Your task to perform on an android device: manage bookmarks in the chrome app Image 0: 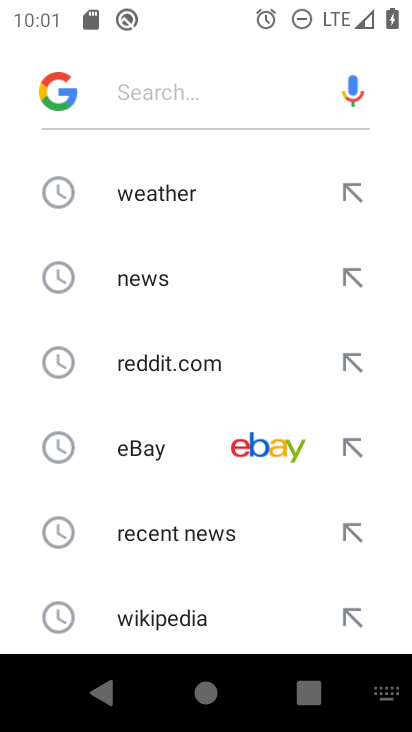
Step 0: press home button
Your task to perform on an android device: manage bookmarks in the chrome app Image 1: 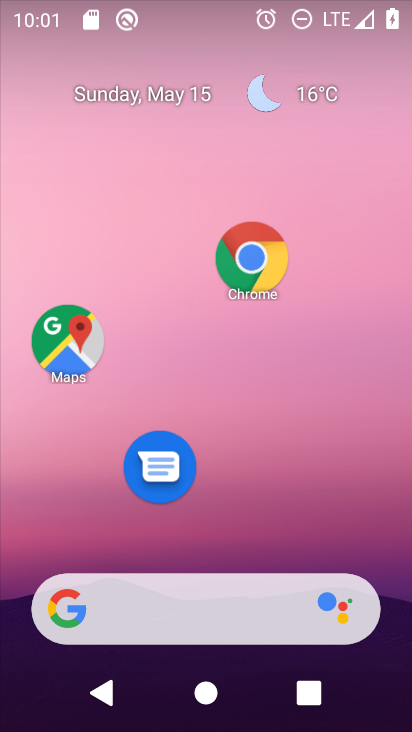
Step 1: click (257, 249)
Your task to perform on an android device: manage bookmarks in the chrome app Image 2: 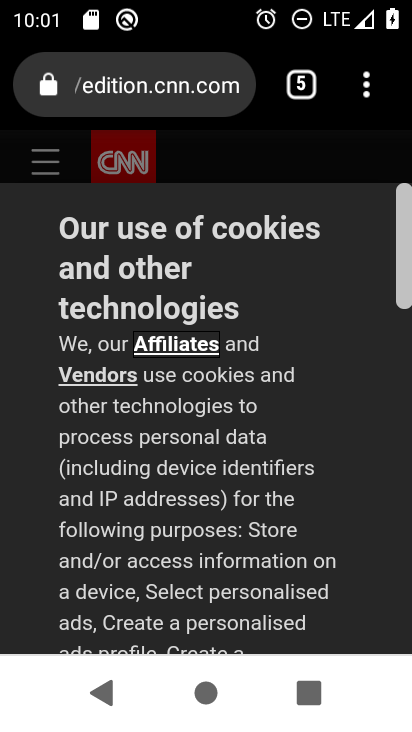
Step 2: click (369, 79)
Your task to perform on an android device: manage bookmarks in the chrome app Image 3: 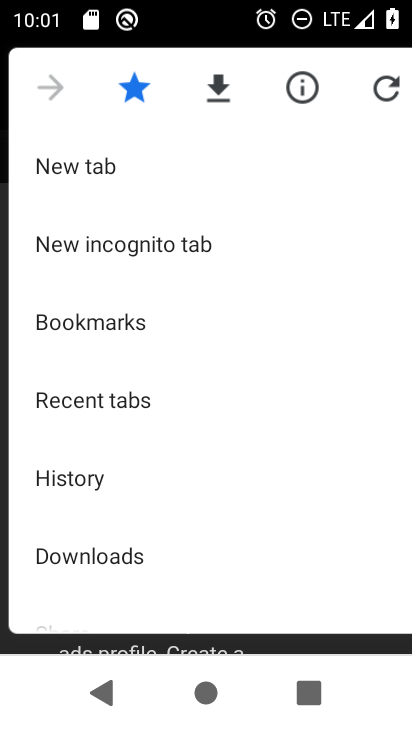
Step 3: click (143, 324)
Your task to perform on an android device: manage bookmarks in the chrome app Image 4: 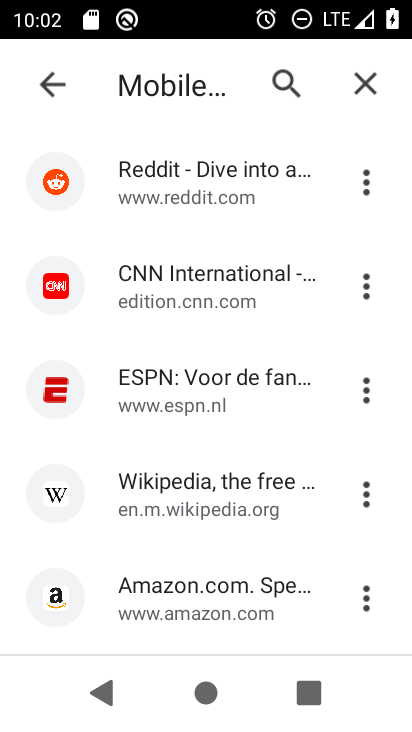
Step 4: click (377, 382)
Your task to perform on an android device: manage bookmarks in the chrome app Image 5: 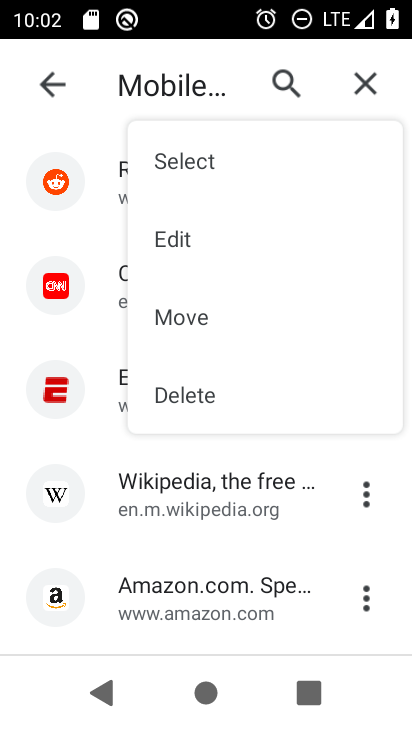
Step 5: click (277, 390)
Your task to perform on an android device: manage bookmarks in the chrome app Image 6: 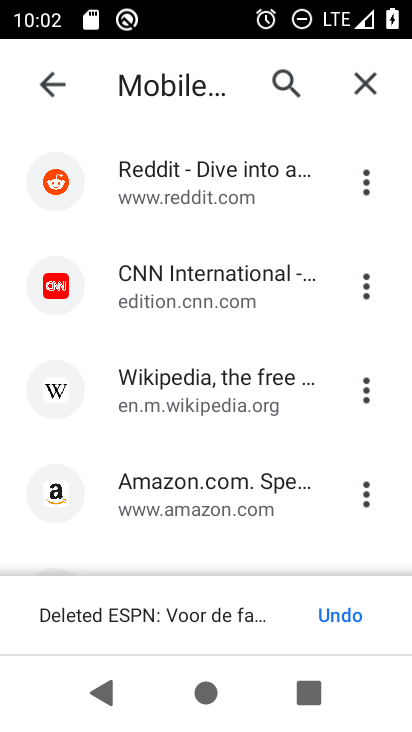
Step 6: task complete